Your task to perform on an android device: Open my contact list Image 0: 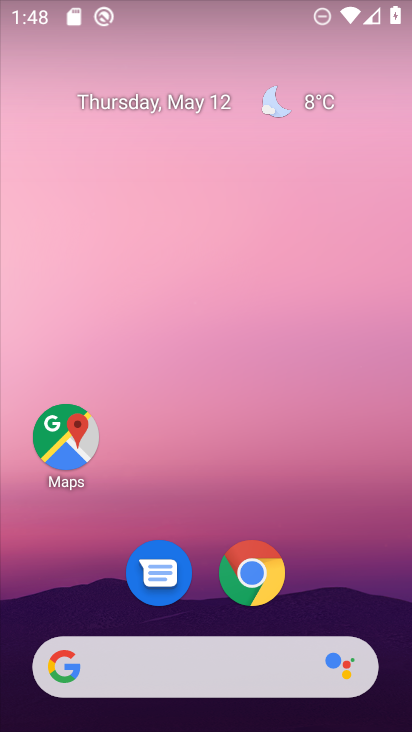
Step 0: drag from (365, 617) to (133, 13)
Your task to perform on an android device: Open my contact list Image 1: 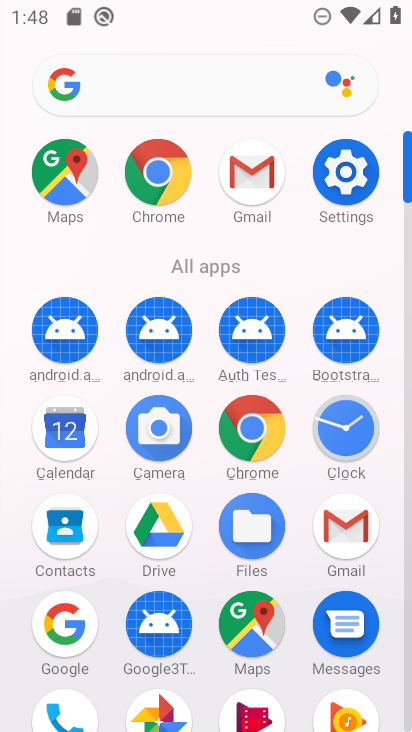
Step 1: click (56, 524)
Your task to perform on an android device: Open my contact list Image 2: 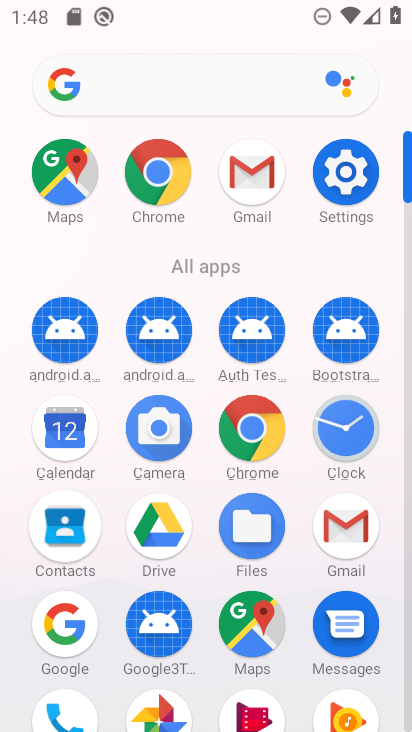
Step 2: click (57, 523)
Your task to perform on an android device: Open my contact list Image 3: 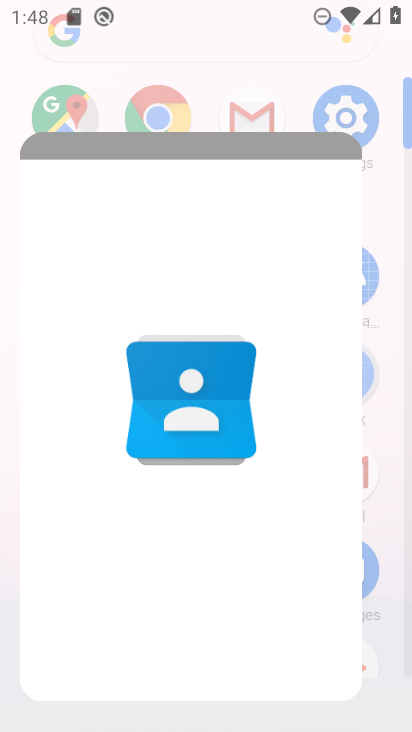
Step 3: click (57, 523)
Your task to perform on an android device: Open my contact list Image 4: 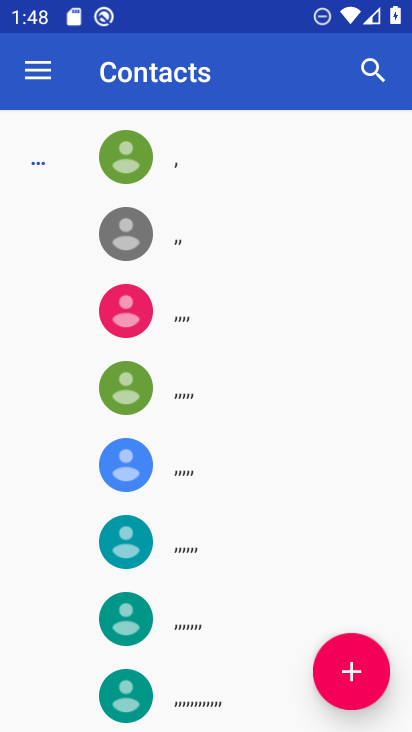
Step 4: task complete